Your task to perform on an android device: install app "Adobe Express: Graphic Design" Image 0: 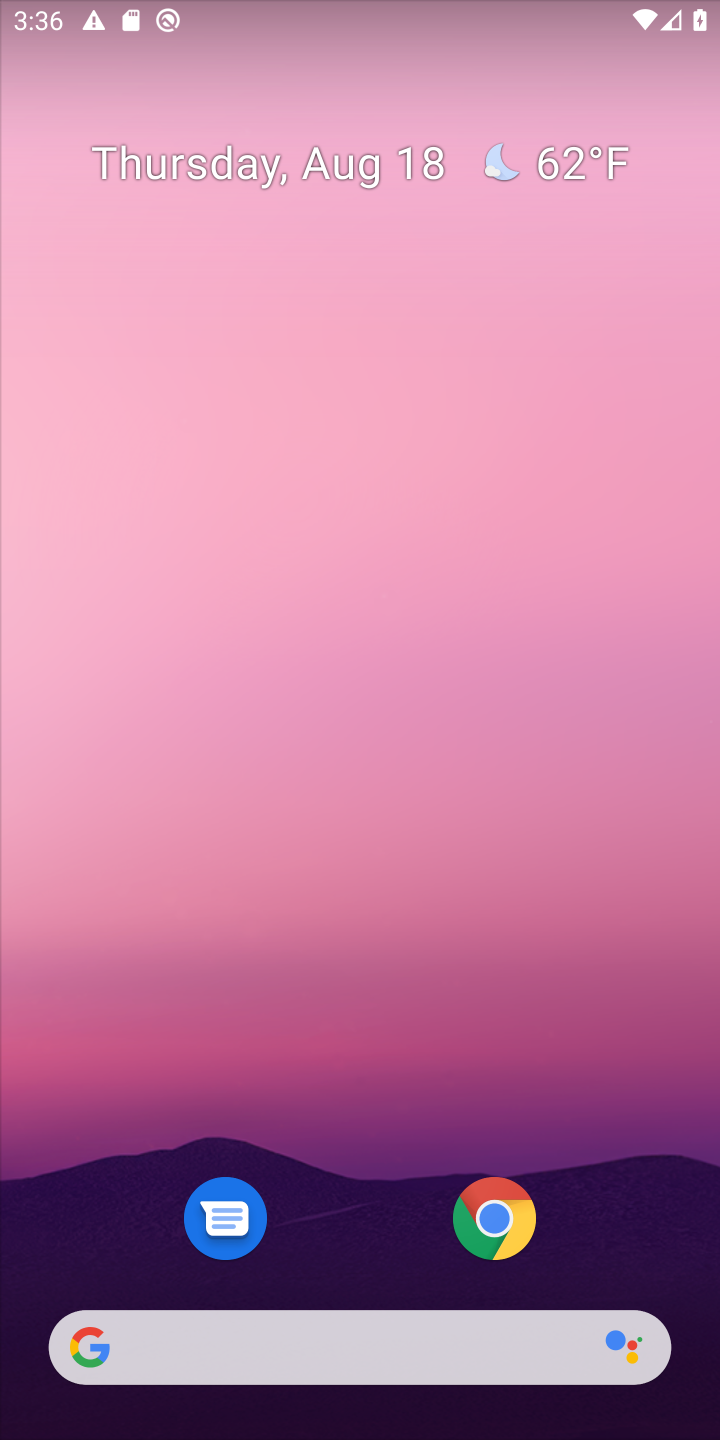
Step 0: drag from (345, 1162) to (385, 549)
Your task to perform on an android device: install app "Adobe Express: Graphic Design" Image 1: 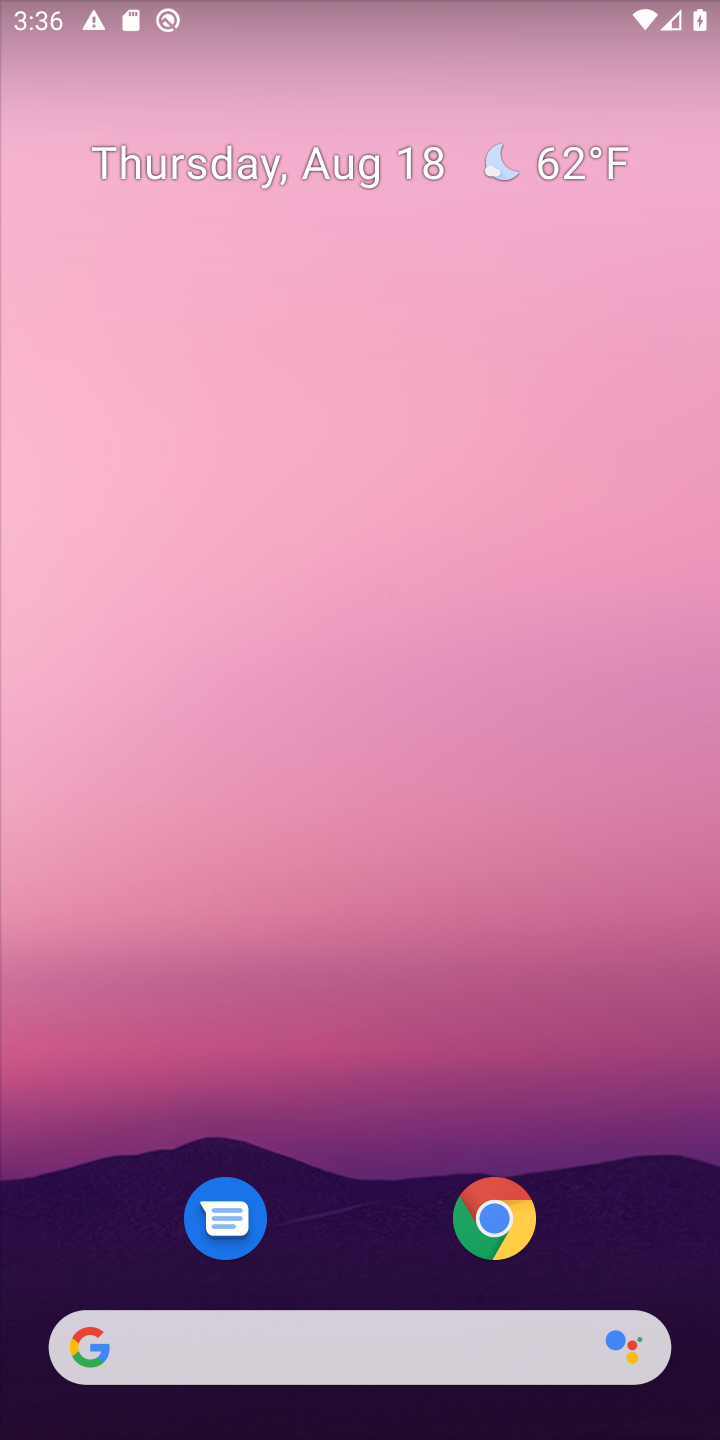
Step 1: drag from (357, 1205) to (368, 393)
Your task to perform on an android device: install app "Adobe Express: Graphic Design" Image 2: 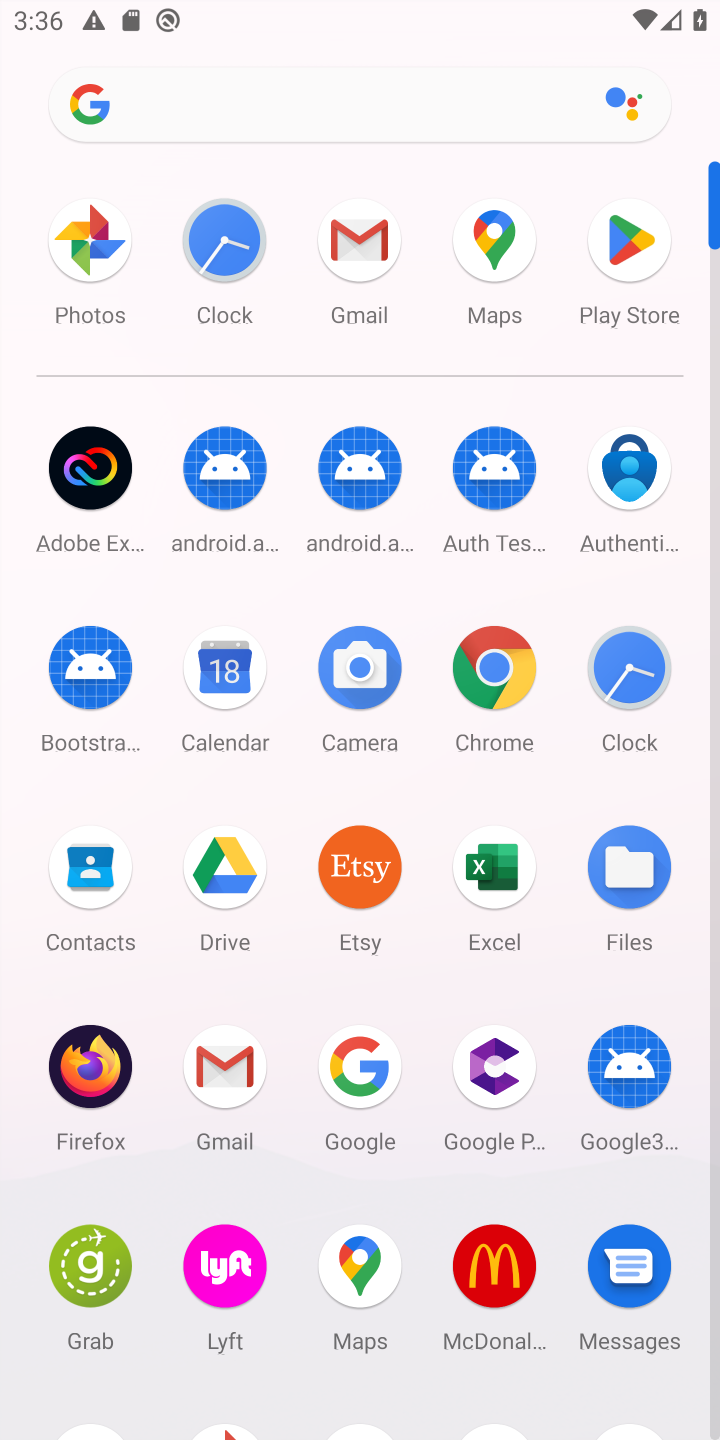
Step 2: click (629, 255)
Your task to perform on an android device: install app "Adobe Express: Graphic Design" Image 3: 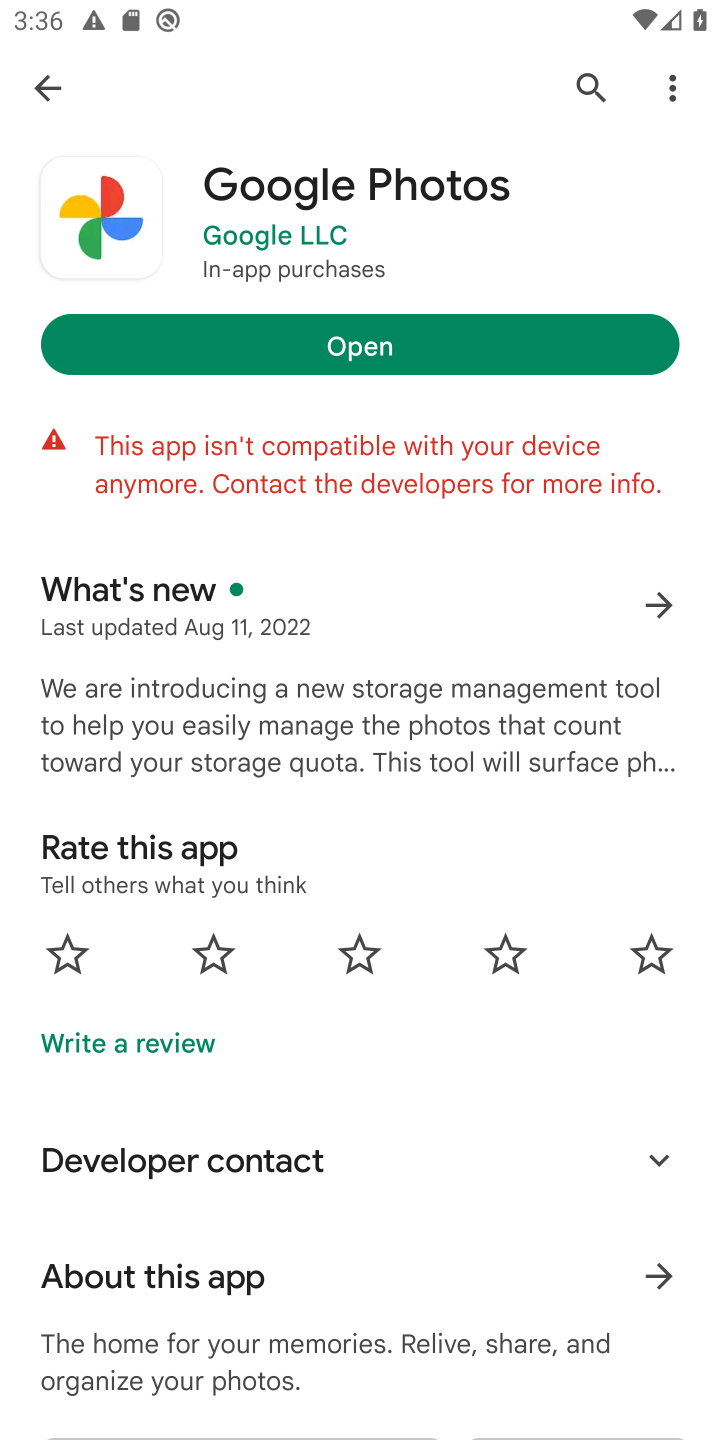
Step 3: click (591, 87)
Your task to perform on an android device: install app "Adobe Express: Graphic Design" Image 4: 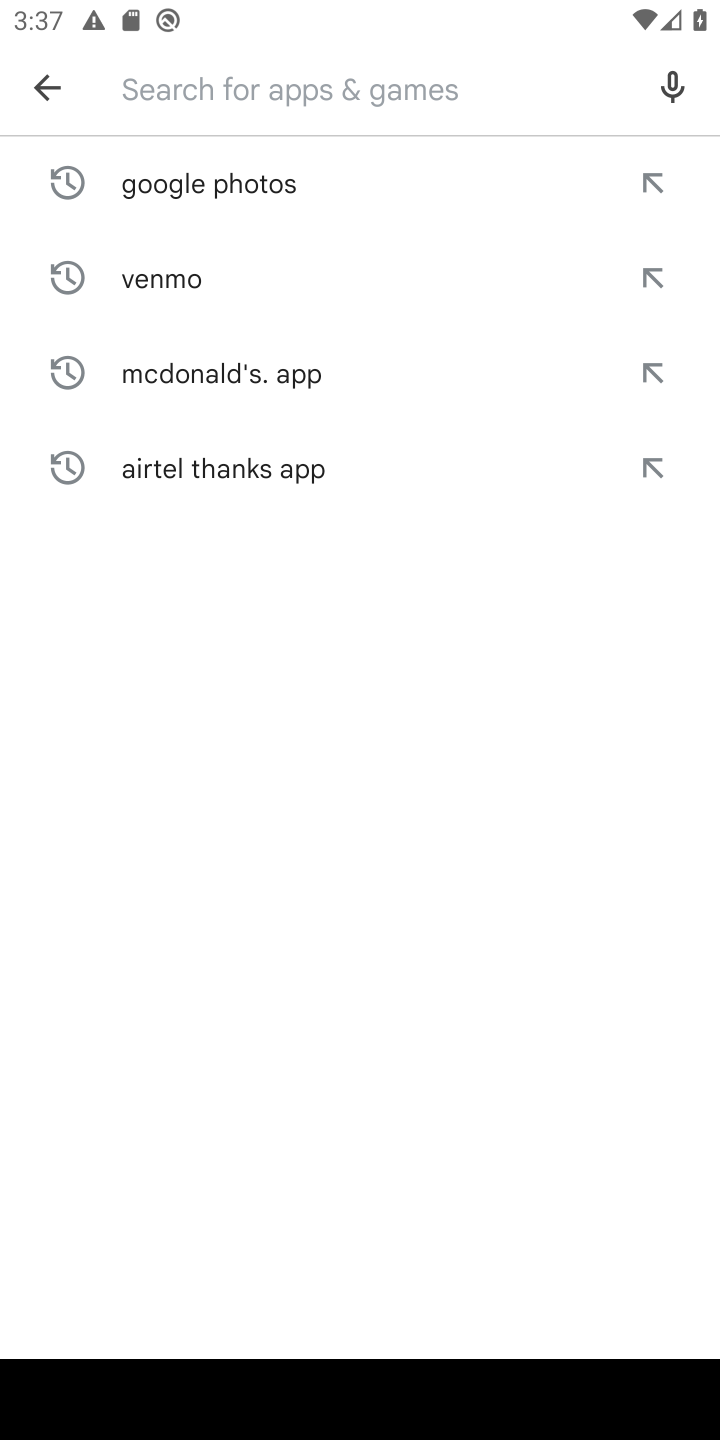
Step 4: type "Adobe Express: Graphic Design"
Your task to perform on an android device: install app "Adobe Express: Graphic Design" Image 5: 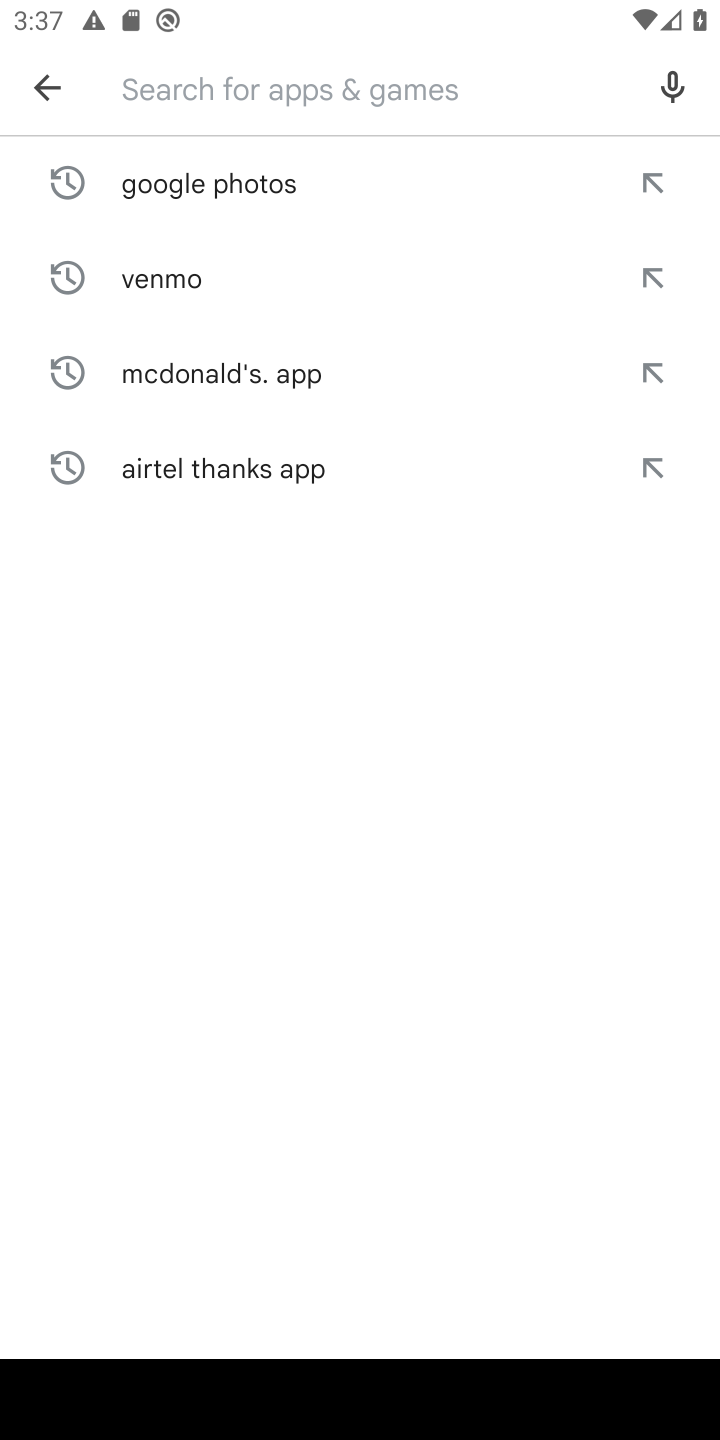
Step 5: click (255, 93)
Your task to perform on an android device: install app "Adobe Express: Graphic Design" Image 6: 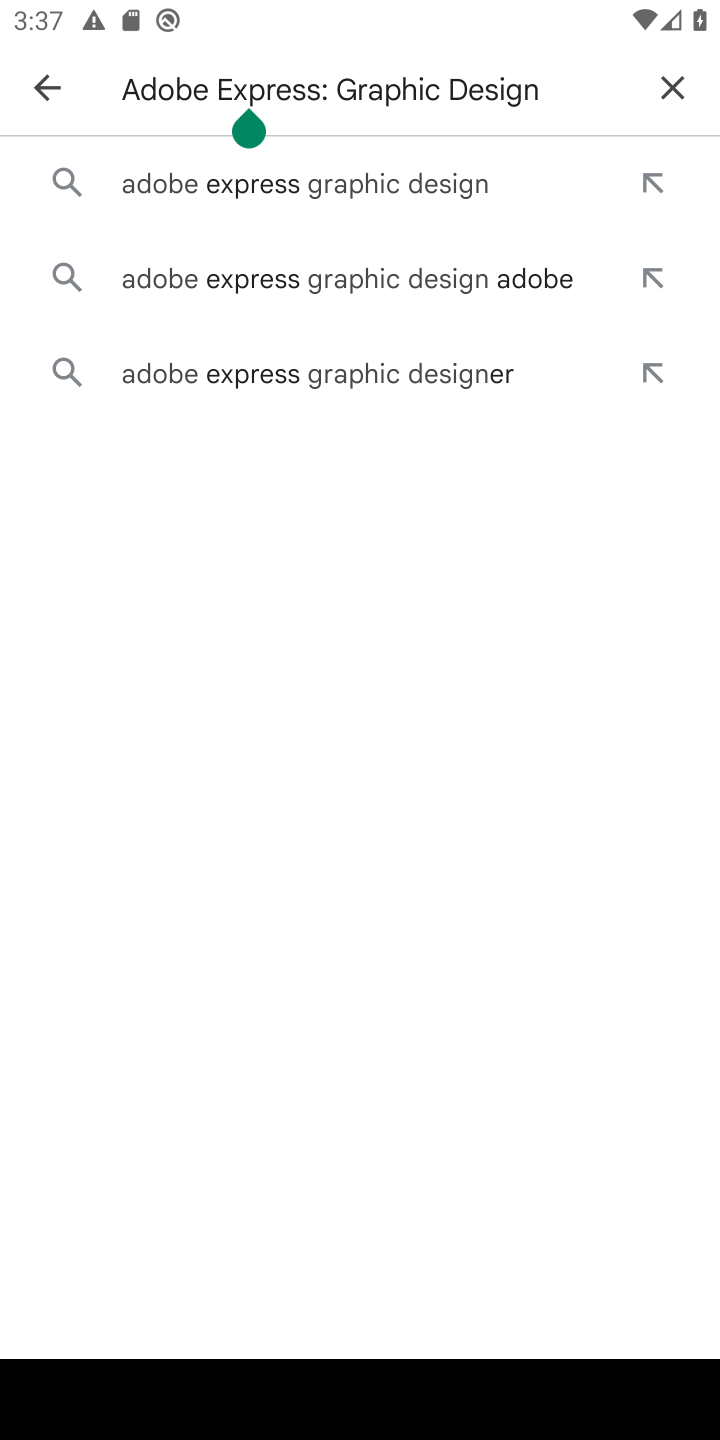
Step 6: type "Adobe Express: Graphic Design"
Your task to perform on an android device: install app "Adobe Express: Graphic Design" Image 7: 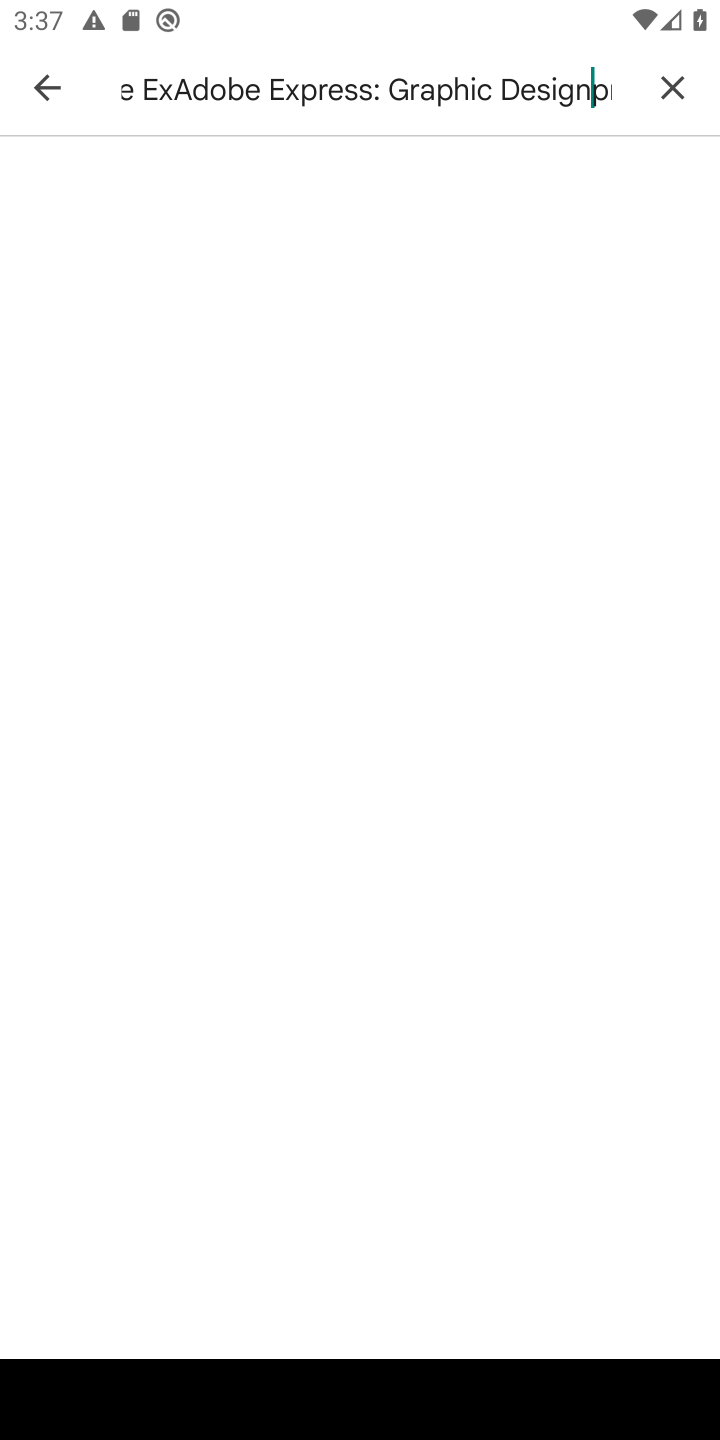
Step 7: type ""
Your task to perform on an android device: install app "Adobe Express: Graphic Design" Image 8: 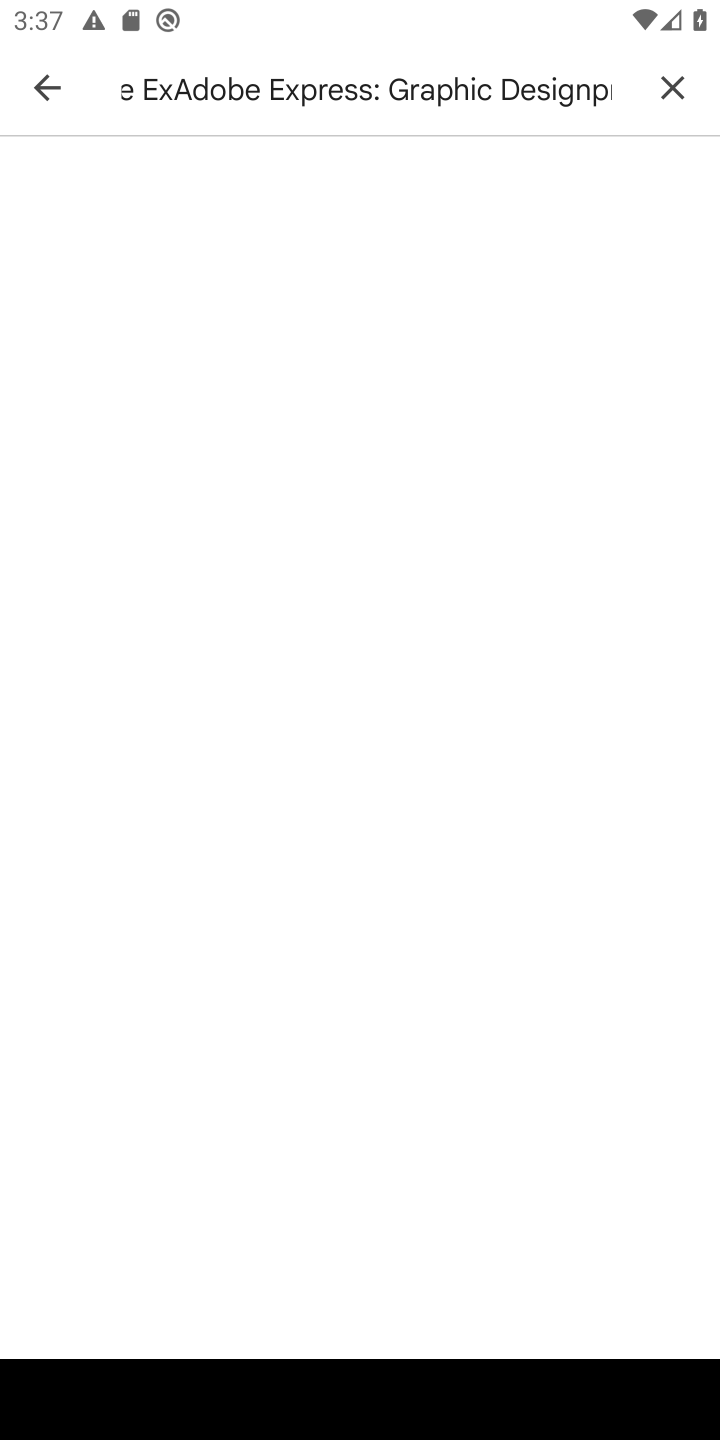
Step 8: click (661, 86)
Your task to perform on an android device: install app "Adobe Express: Graphic Design" Image 9: 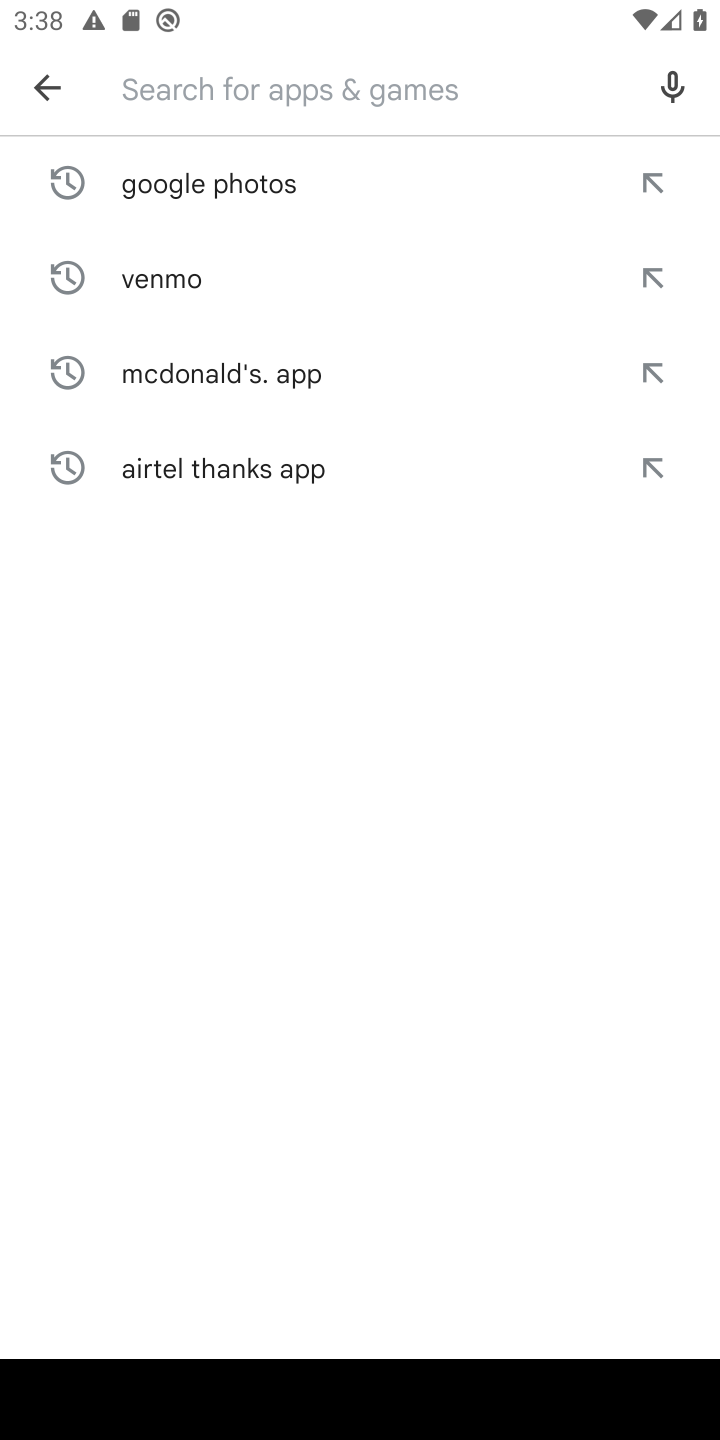
Step 9: type "Adobe Express: Graphic Design"
Your task to perform on an android device: install app "Adobe Express: Graphic Design" Image 10: 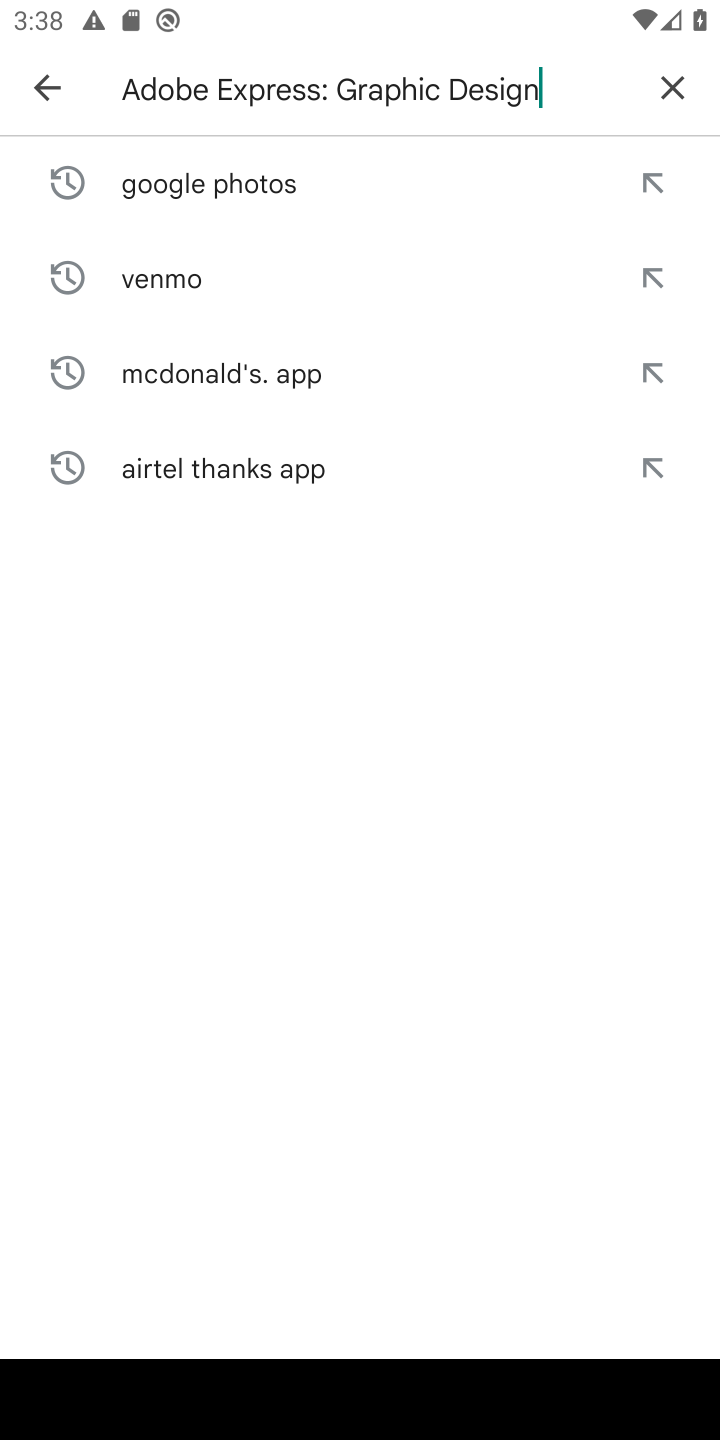
Step 10: type ""
Your task to perform on an android device: install app "Adobe Express: Graphic Design" Image 11: 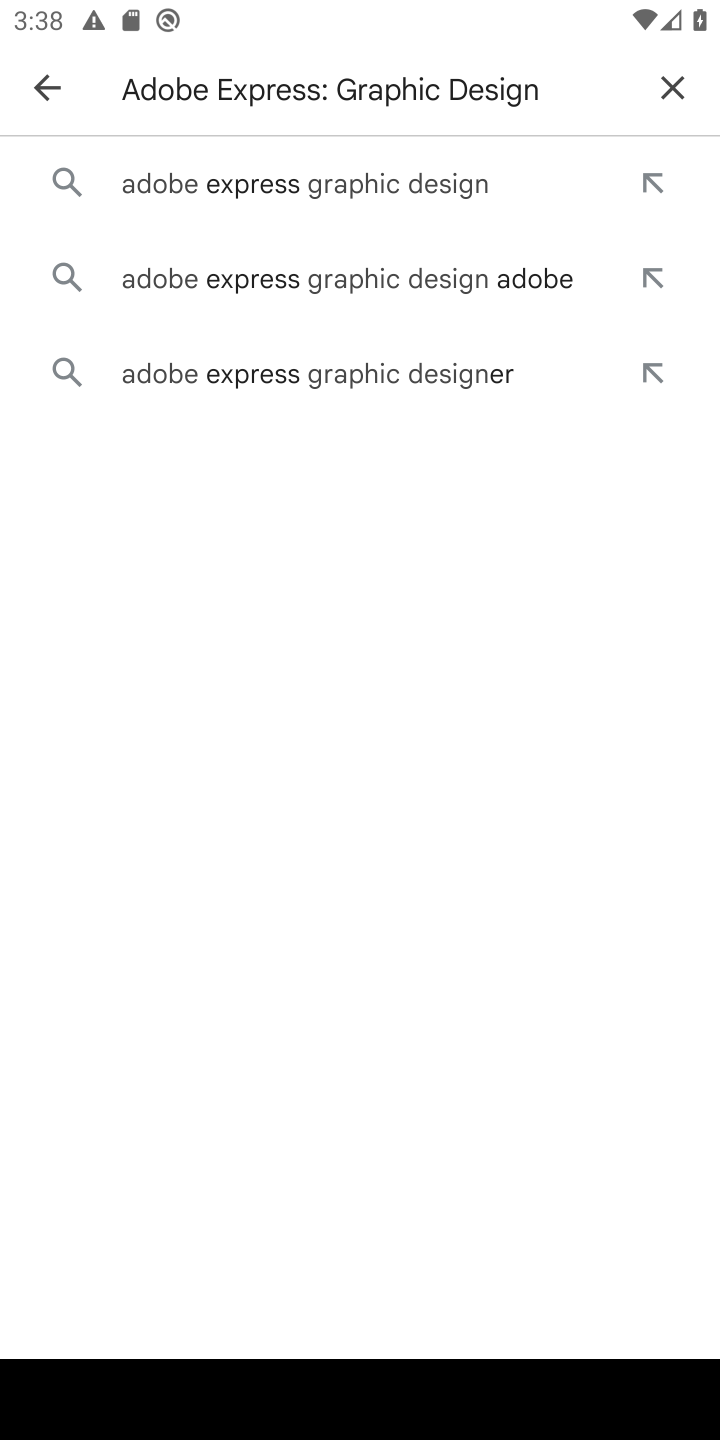
Step 11: click (379, 174)
Your task to perform on an android device: install app "Adobe Express: Graphic Design" Image 12: 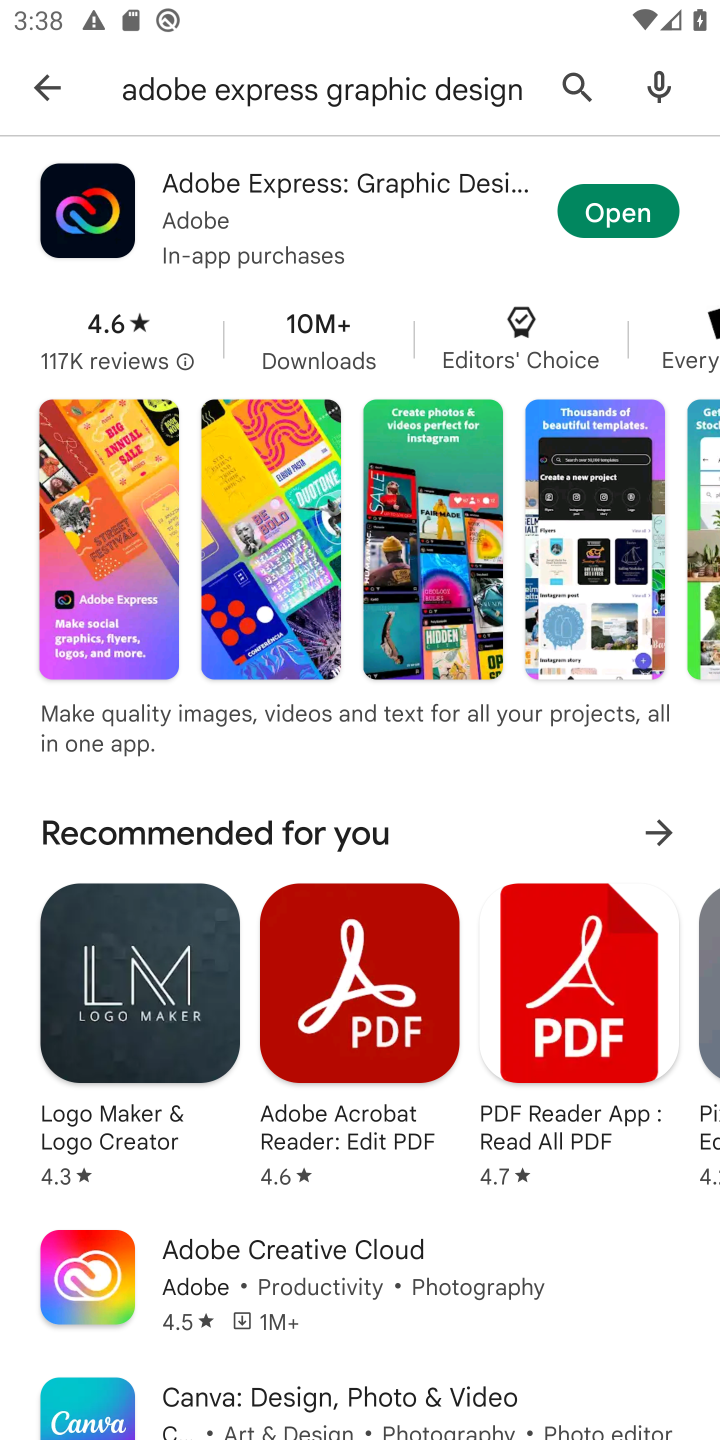
Step 12: task complete